Your task to perform on an android device: toggle show notifications on the lock screen Image 0: 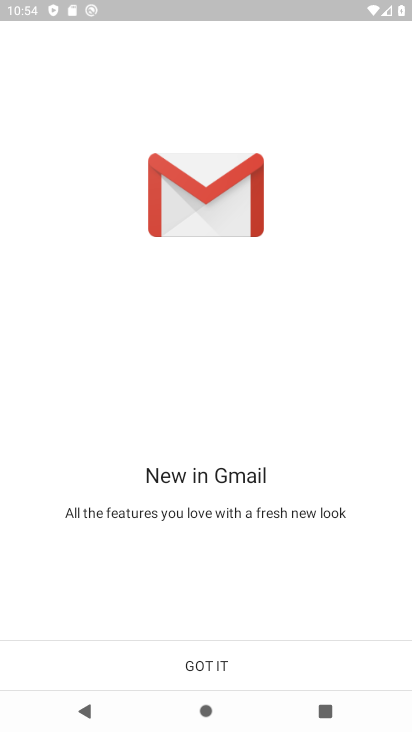
Step 0: press home button
Your task to perform on an android device: toggle show notifications on the lock screen Image 1: 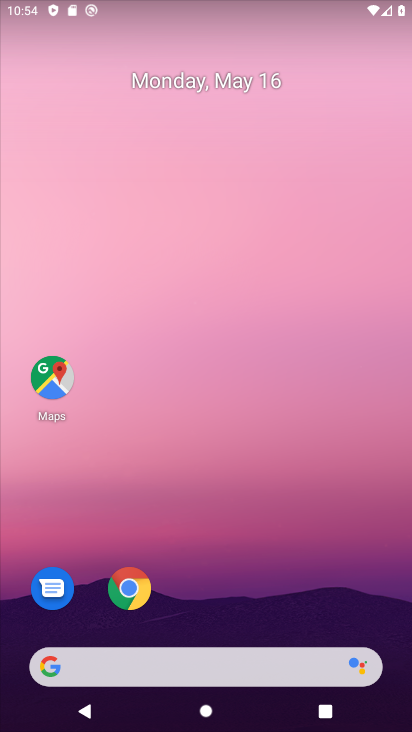
Step 1: drag from (361, 606) to (363, 69)
Your task to perform on an android device: toggle show notifications on the lock screen Image 2: 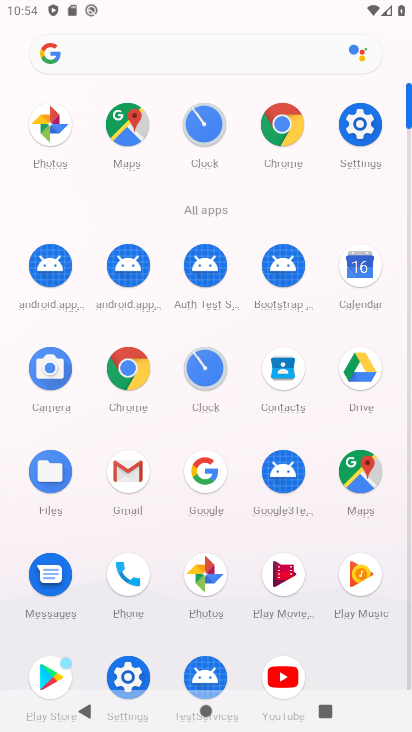
Step 2: click (363, 134)
Your task to perform on an android device: toggle show notifications on the lock screen Image 3: 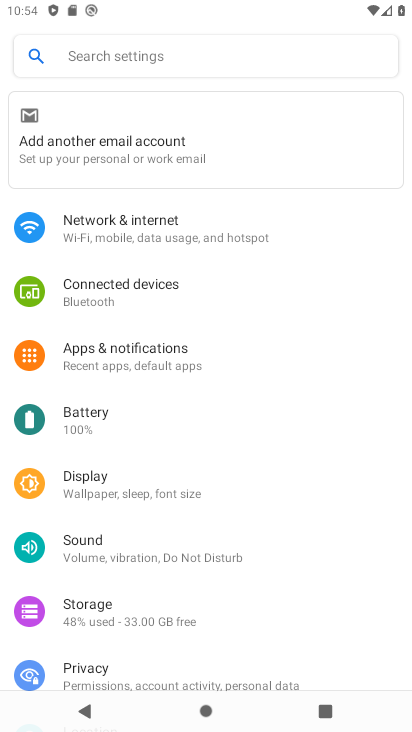
Step 3: drag from (321, 597) to (350, 376)
Your task to perform on an android device: toggle show notifications on the lock screen Image 4: 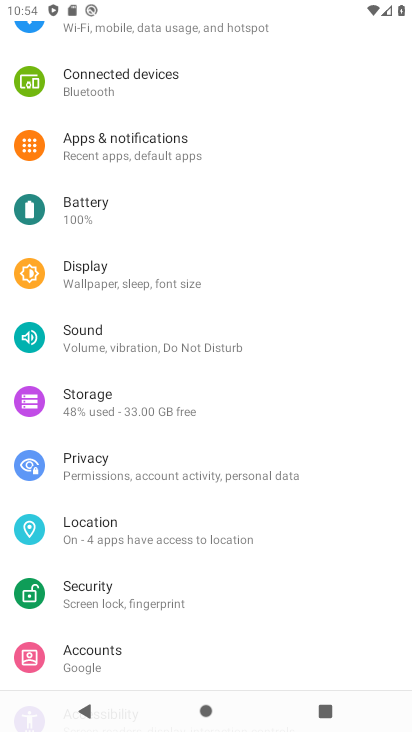
Step 4: drag from (315, 616) to (332, 421)
Your task to perform on an android device: toggle show notifications on the lock screen Image 5: 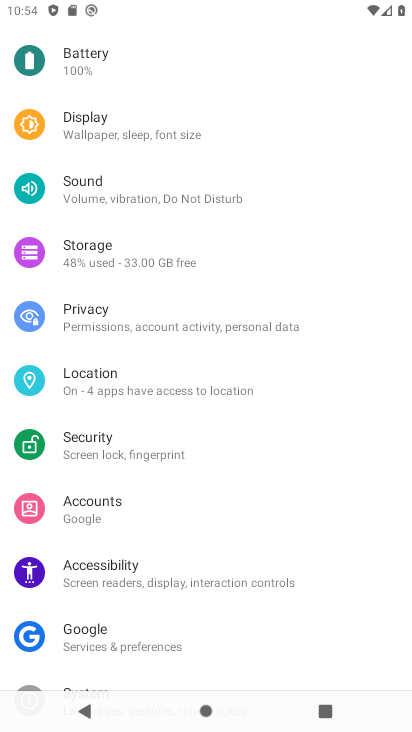
Step 5: drag from (328, 621) to (323, 376)
Your task to perform on an android device: toggle show notifications on the lock screen Image 6: 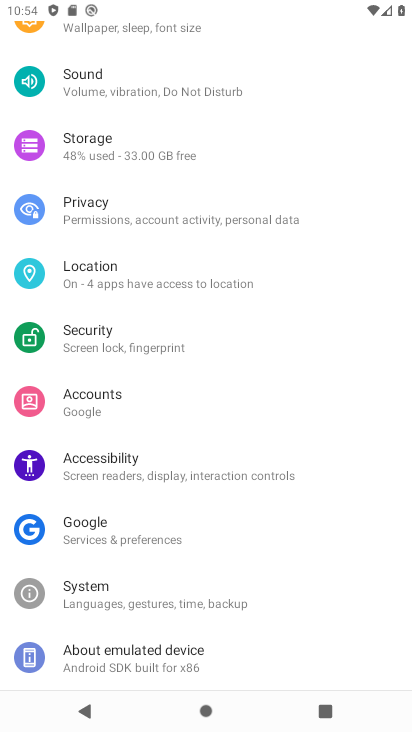
Step 6: drag from (311, 596) to (334, 360)
Your task to perform on an android device: toggle show notifications on the lock screen Image 7: 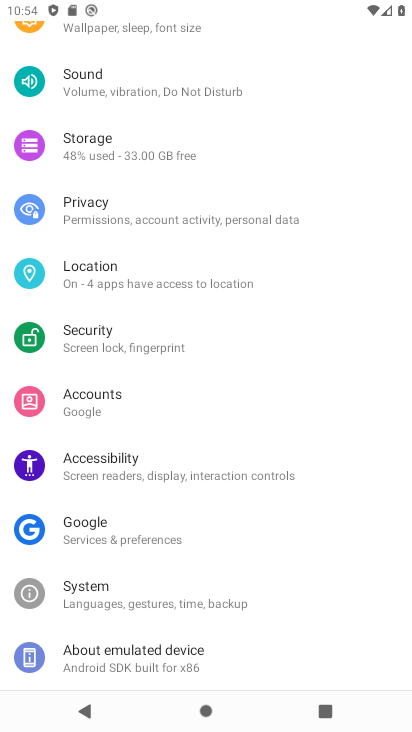
Step 7: drag from (356, 257) to (341, 464)
Your task to perform on an android device: toggle show notifications on the lock screen Image 8: 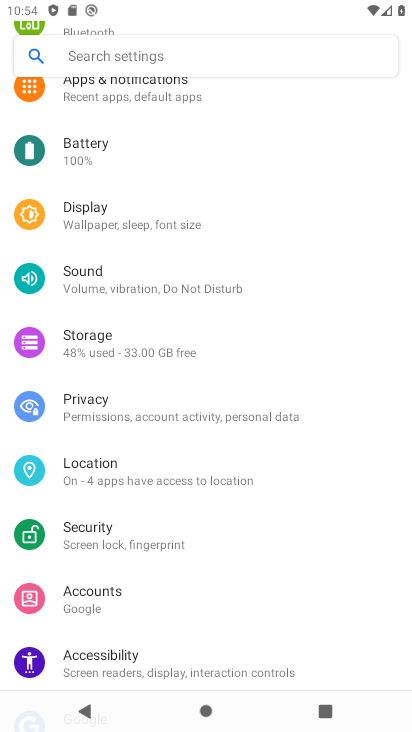
Step 8: drag from (336, 233) to (339, 432)
Your task to perform on an android device: toggle show notifications on the lock screen Image 9: 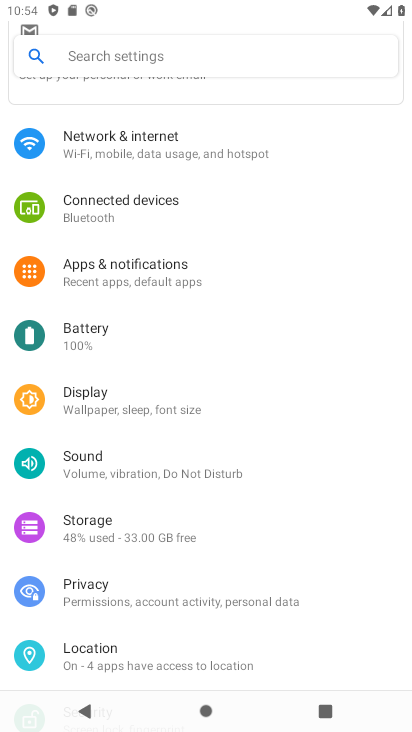
Step 9: drag from (344, 262) to (338, 474)
Your task to perform on an android device: toggle show notifications on the lock screen Image 10: 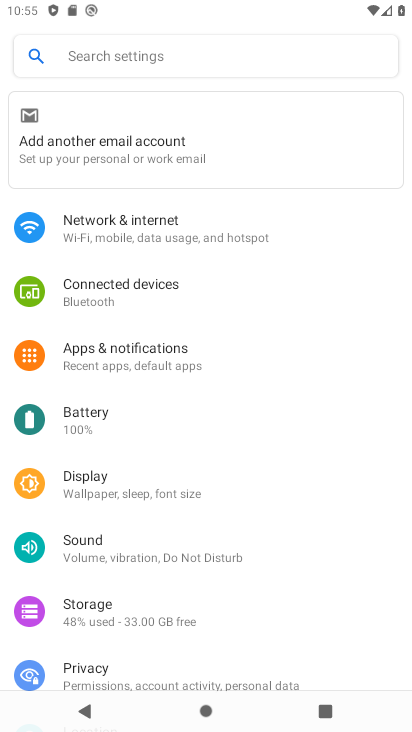
Step 10: click (170, 356)
Your task to perform on an android device: toggle show notifications on the lock screen Image 11: 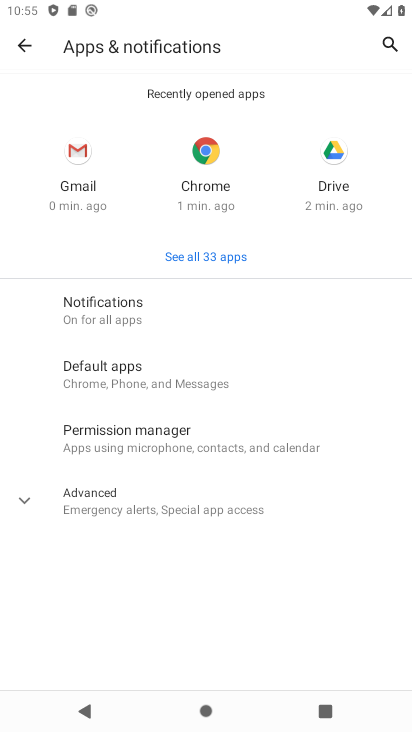
Step 11: click (131, 292)
Your task to perform on an android device: toggle show notifications on the lock screen Image 12: 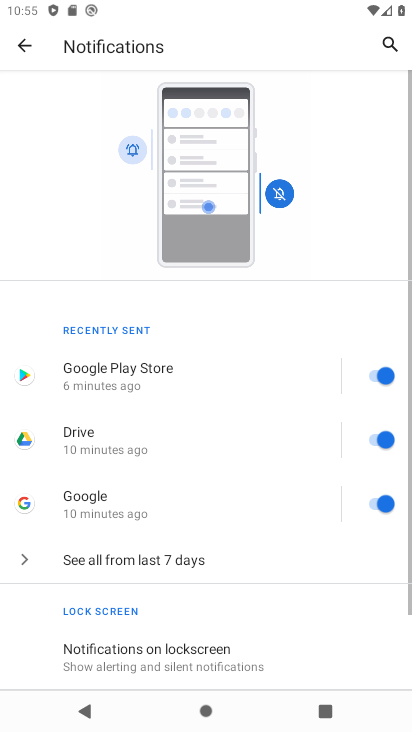
Step 12: drag from (285, 595) to (293, 405)
Your task to perform on an android device: toggle show notifications on the lock screen Image 13: 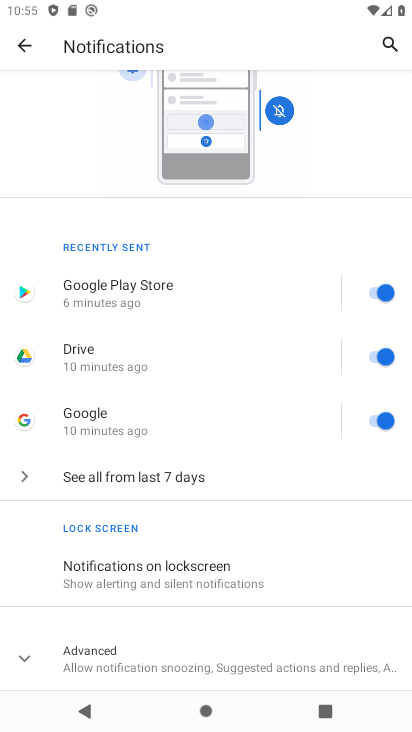
Step 13: drag from (245, 589) to (275, 378)
Your task to perform on an android device: toggle show notifications on the lock screen Image 14: 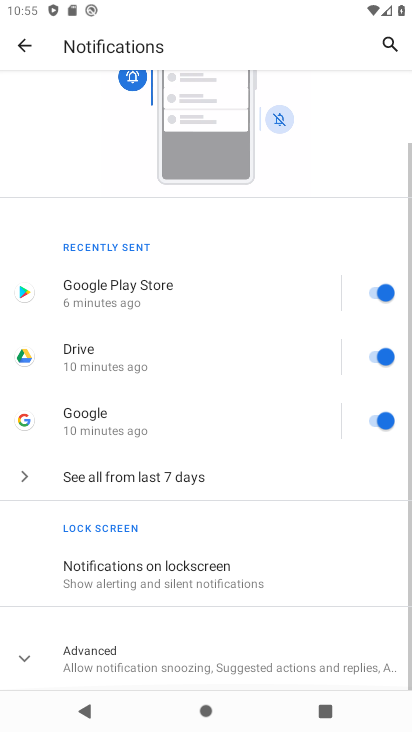
Step 14: click (233, 576)
Your task to perform on an android device: toggle show notifications on the lock screen Image 15: 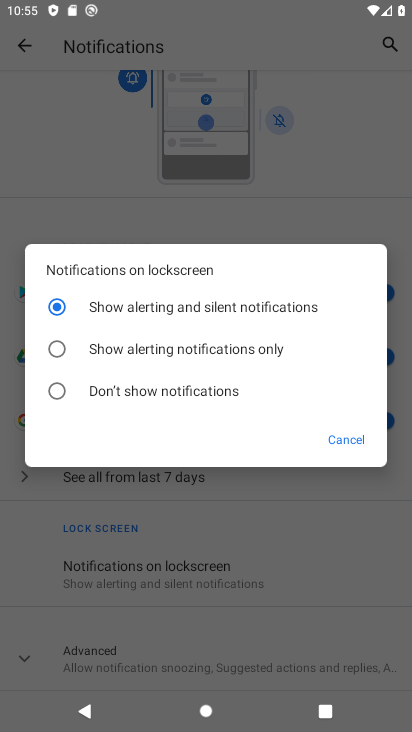
Step 15: click (76, 348)
Your task to perform on an android device: toggle show notifications on the lock screen Image 16: 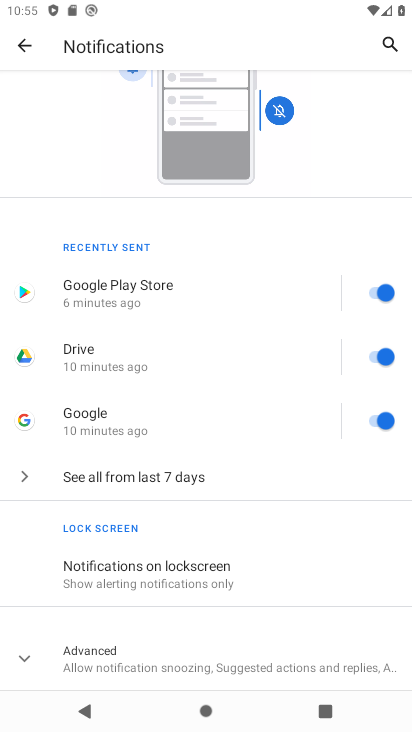
Step 16: task complete